Your task to perform on an android device: Open internet settings Image 0: 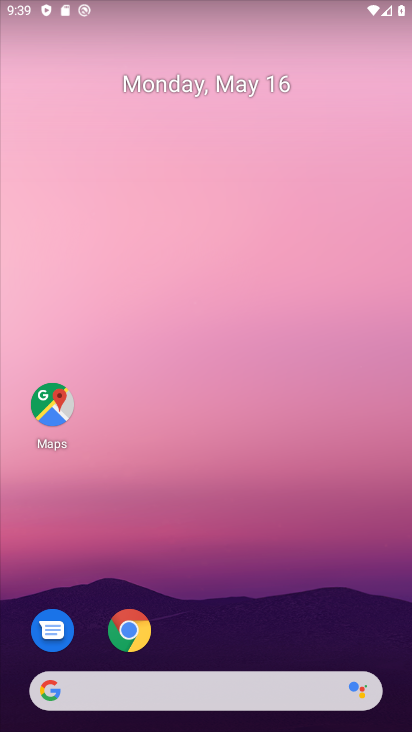
Step 0: drag from (277, 551) to (290, 31)
Your task to perform on an android device: Open internet settings Image 1: 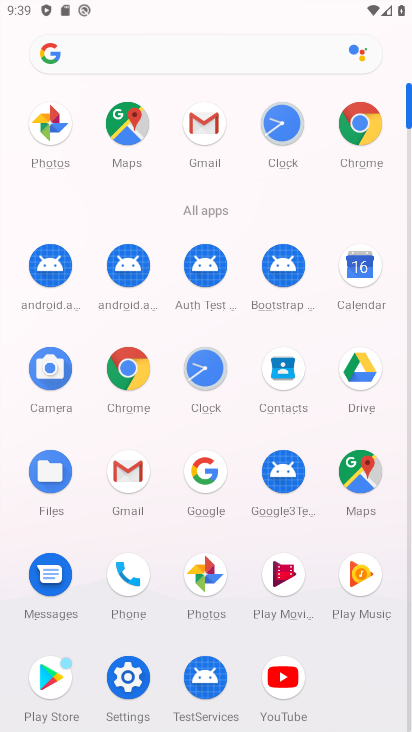
Step 1: click (131, 667)
Your task to perform on an android device: Open internet settings Image 2: 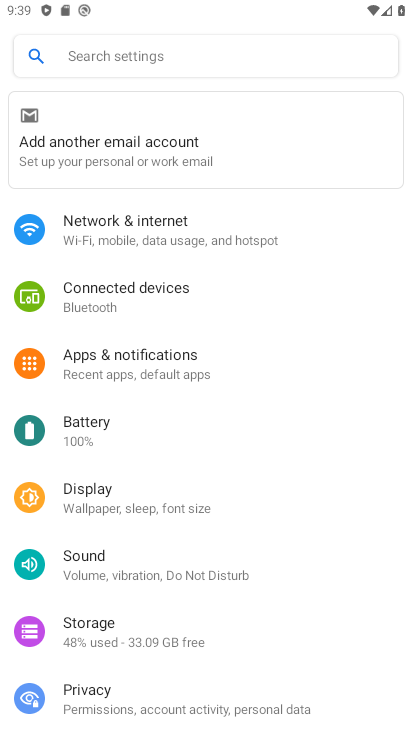
Step 2: click (226, 233)
Your task to perform on an android device: Open internet settings Image 3: 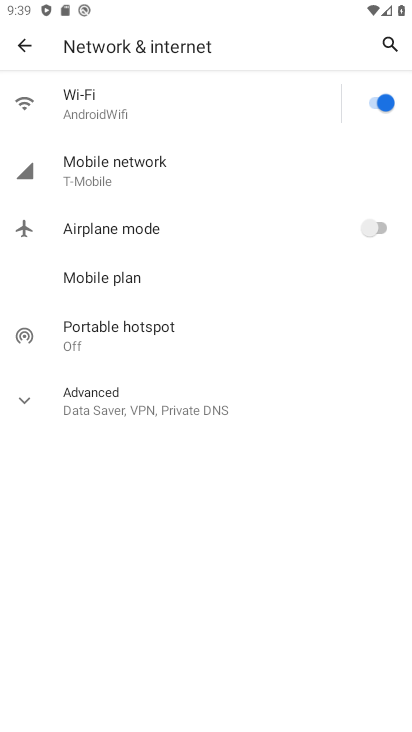
Step 3: task complete